Your task to perform on an android device: What's on my calendar tomorrow? Image 0: 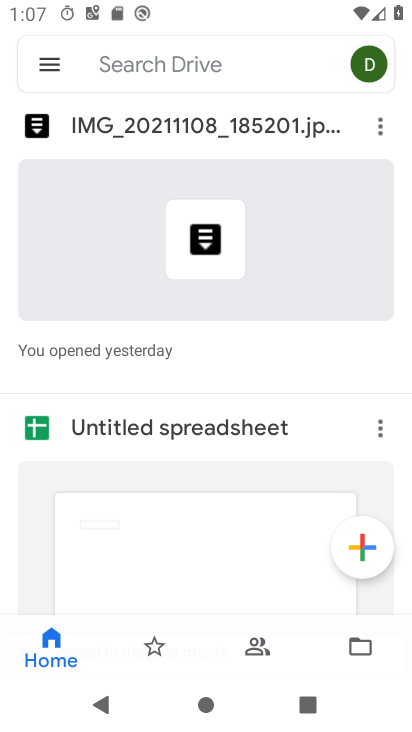
Step 0: press home button
Your task to perform on an android device: What's on my calendar tomorrow? Image 1: 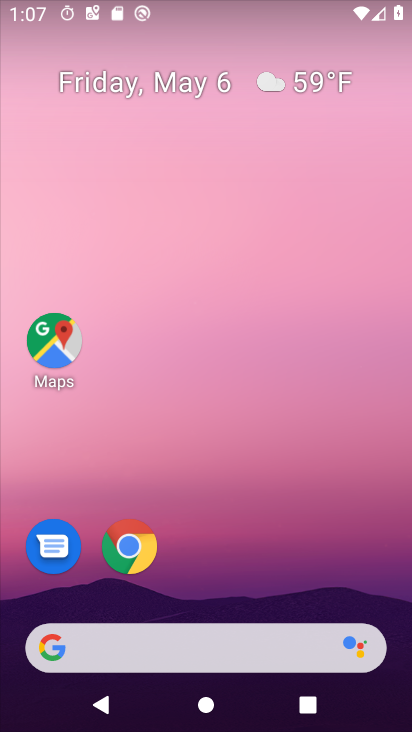
Step 1: drag from (257, 591) to (249, 156)
Your task to perform on an android device: What's on my calendar tomorrow? Image 2: 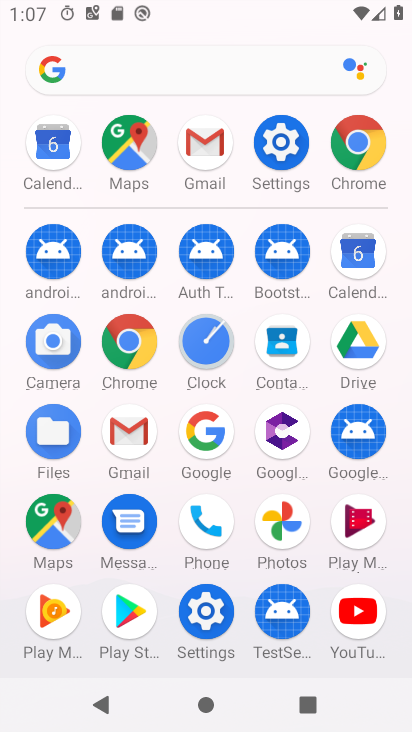
Step 2: click (357, 255)
Your task to perform on an android device: What's on my calendar tomorrow? Image 3: 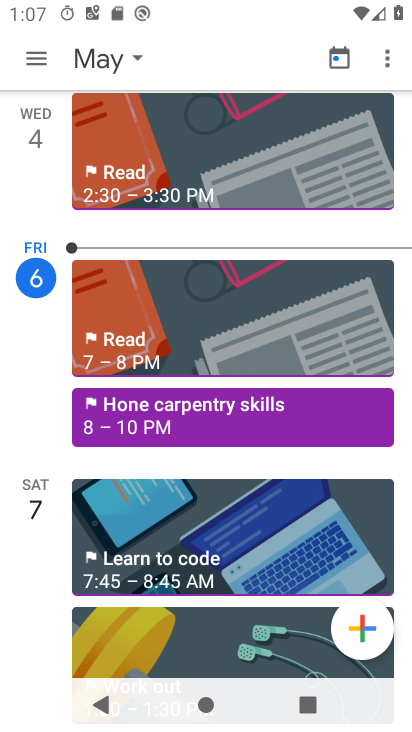
Step 3: drag from (236, 517) to (231, 159)
Your task to perform on an android device: What's on my calendar tomorrow? Image 4: 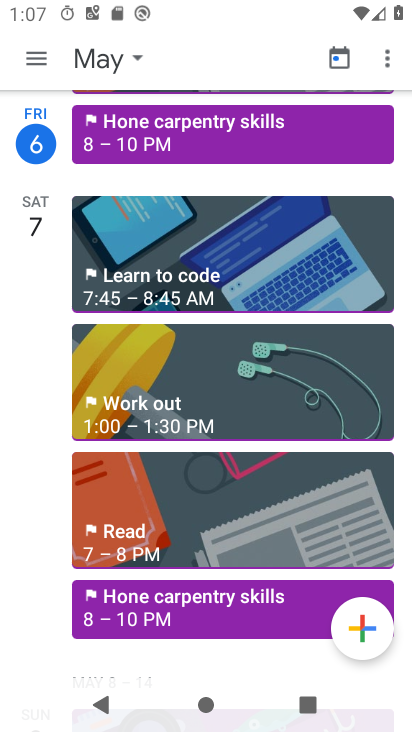
Step 4: click (45, 53)
Your task to perform on an android device: What's on my calendar tomorrow? Image 5: 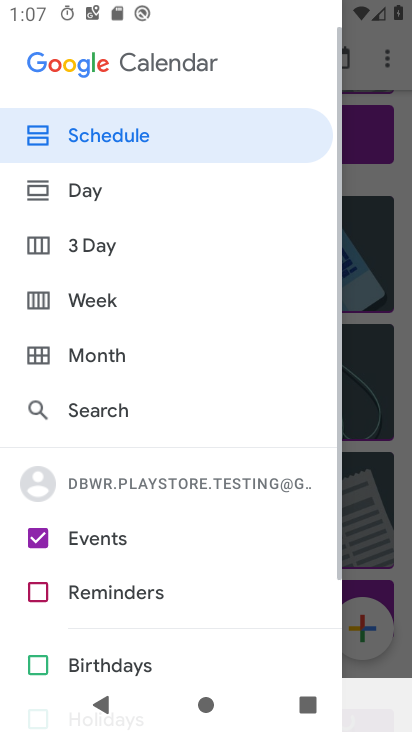
Step 5: click (41, 598)
Your task to perform on an android device: What's on my calendar tomorrow? Image 6: 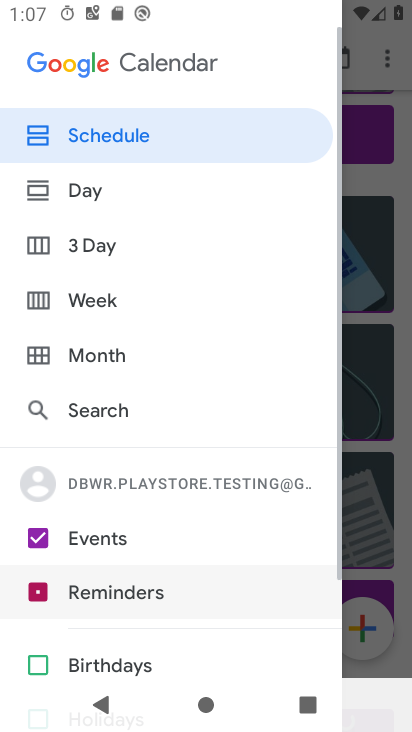
Step 6: click (40, 668)
Your task to perform on an android device: What's on my calendar tomorrow? Image 7: 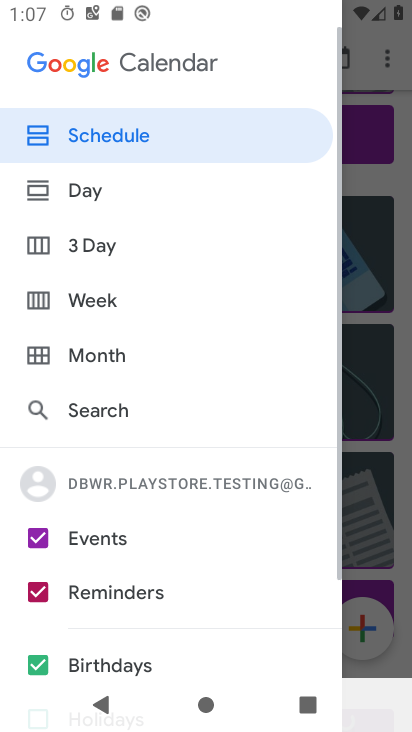
Step 7: drag from (106, 601) to (140, 339)
Your task to perform on an android device: What's on my calendar tomorrow? Image 8: 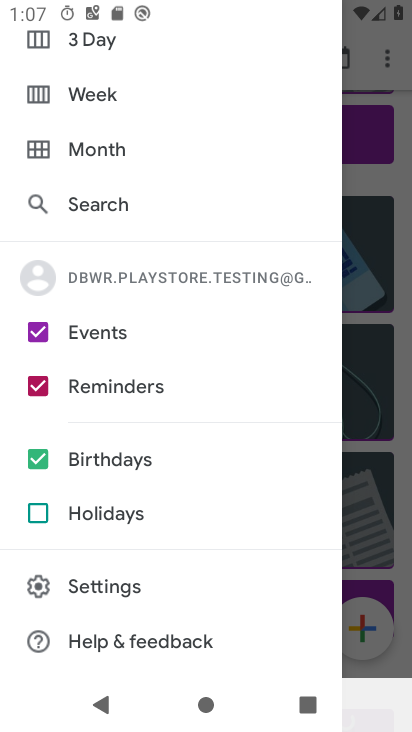
Step 8: click (34, 511)
Your task to perform on an android device: What's on my calendar tomorrow? Image 9: 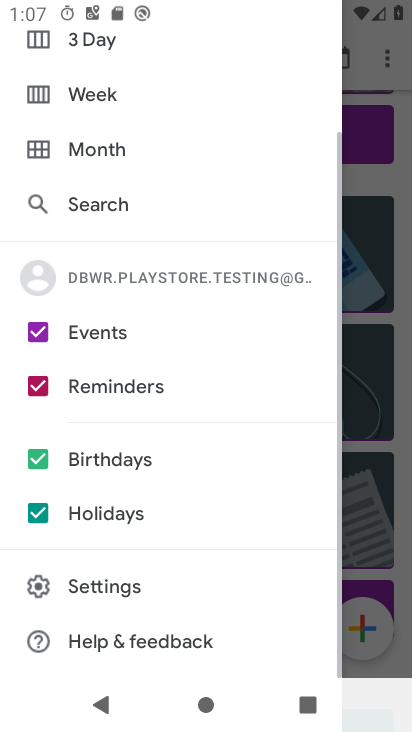
Step 9: click (371, 342)
Your task to perform on an android device: What's on my calendar tomorrow? Image 10: 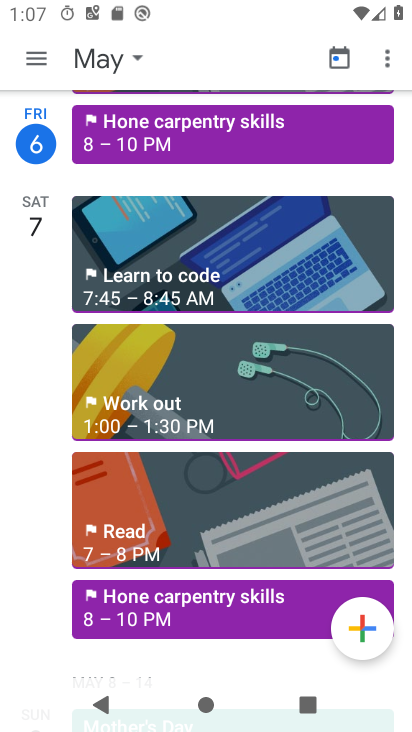
Step 10: task complete